Your task to perform on an android device: empty trash in the gmail app Image 0: 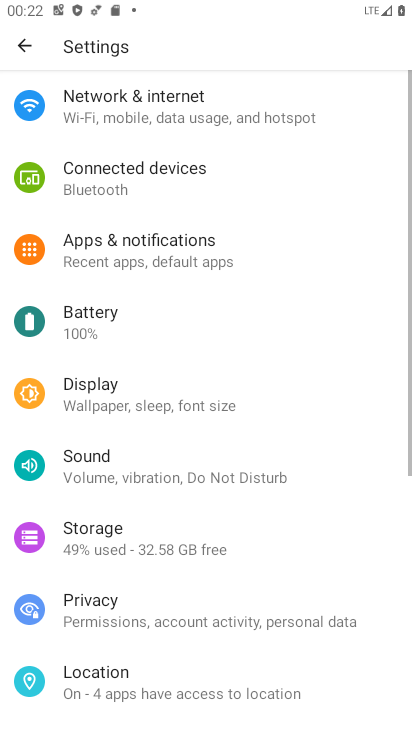
Step 0: press home button
Your task to perform on an android device: empty trash in the gmail app Image 1: 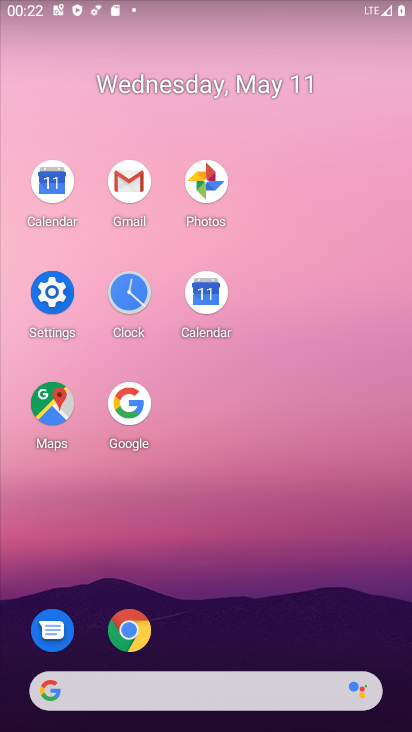
Step 1: click (141, 168)
Your task to perform on an android device: empty trash in the gmail app Image 2: 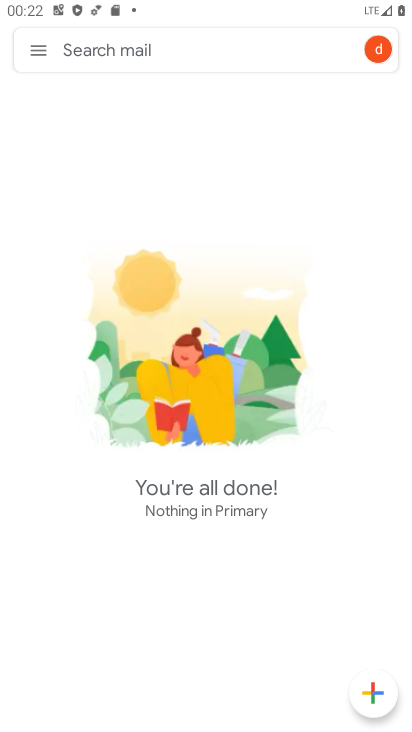
Step 2: click (26, 55)
Your task to perform on an android device: empty trash in the gmail app Image 3: 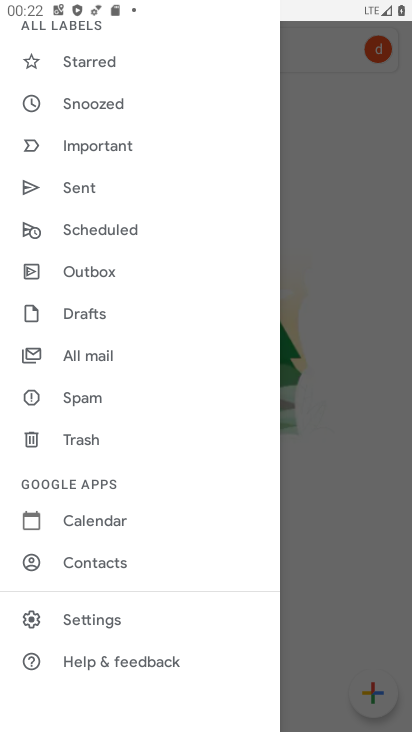
Step 3: click (100, 612)
Your task to perform on an android device: empty trash in the gmail app Image 4: 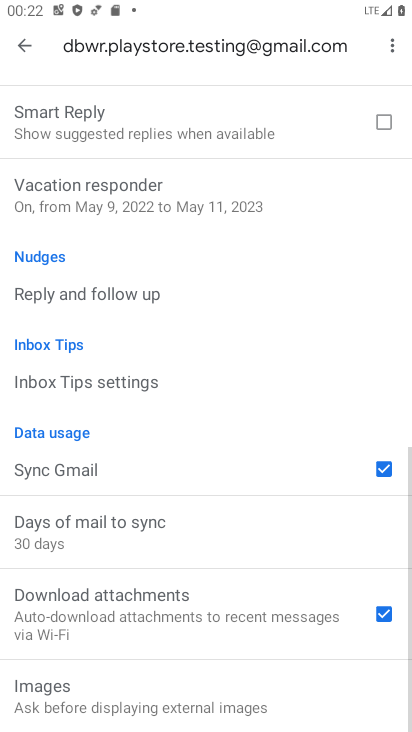
Step 4: drag from (156, 520) to (172, 133)
Your task to perform on an android device: empty trash in the gmail app Image 5: 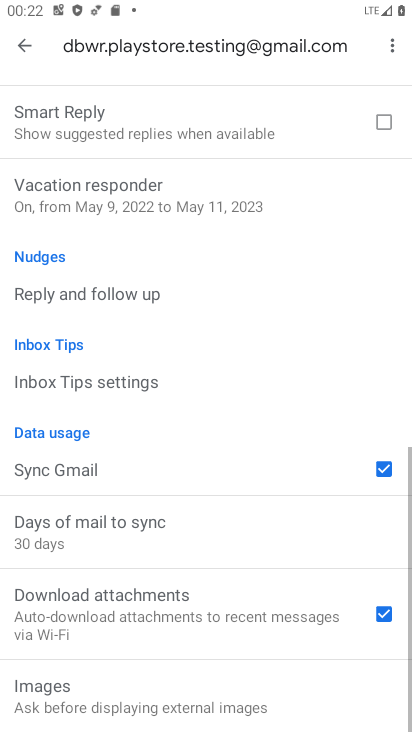
Step 5: drag from (193, 625) to (182, 125)
Your task to perform on an android device: empty trash in the gmail app Image 6: 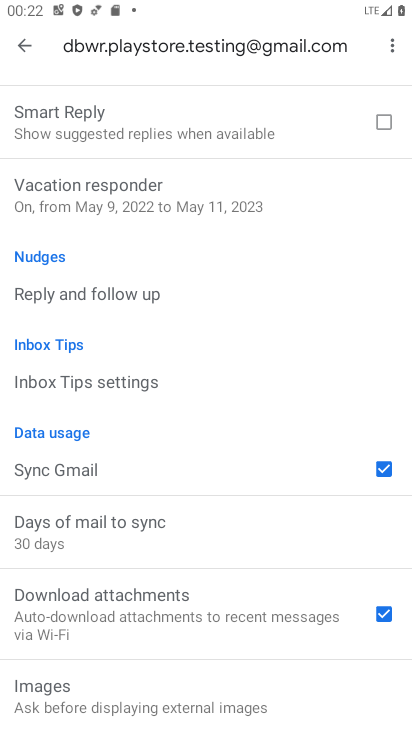
Step 6: click (15, 47)
Your task to perform on an android device: empty trash in the gmail app Image 7: 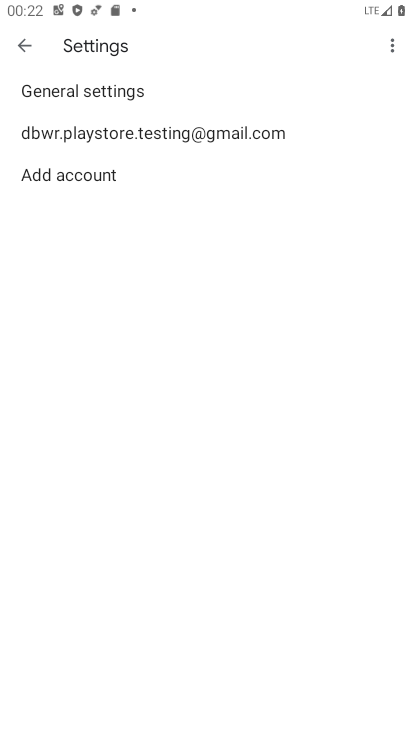
Step 7: click (15, 47)
Your task to perform on an android device: empty trash in the gmail app Image 8: 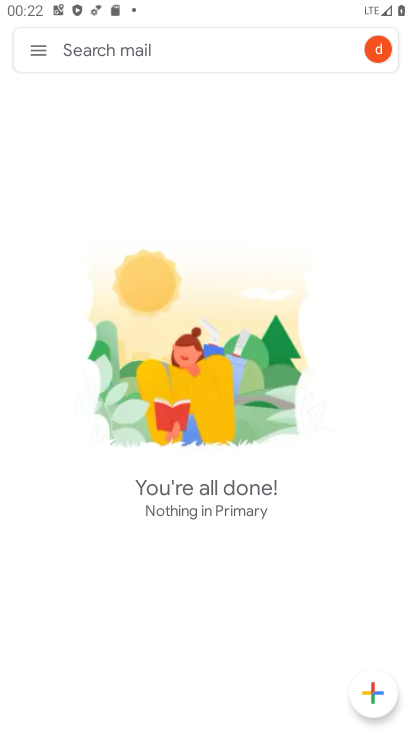
Step 8: click (49, 53)
Your task to perform on an android device: empty trash in the gmail app Image 9: 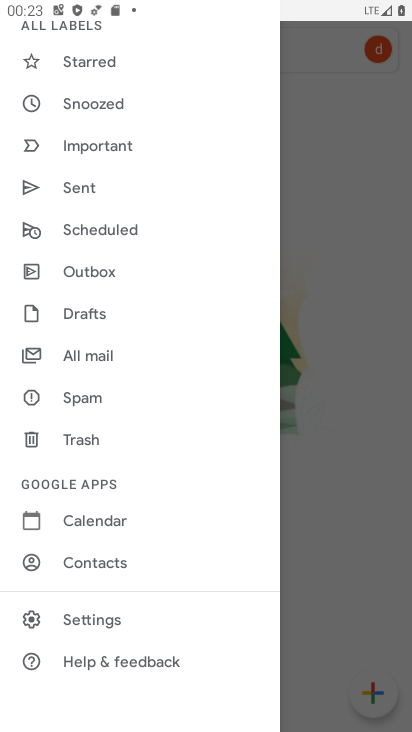
Step 9: click (127, 451)
Your task to perform on an android device: empty trash in the gmail app Image 10: 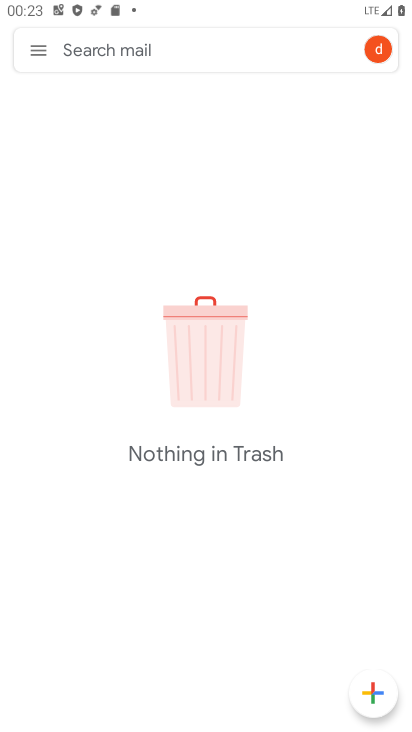
Step 10: task complete